Your task to perform on an android device: Go to accessibility settings Image 0: 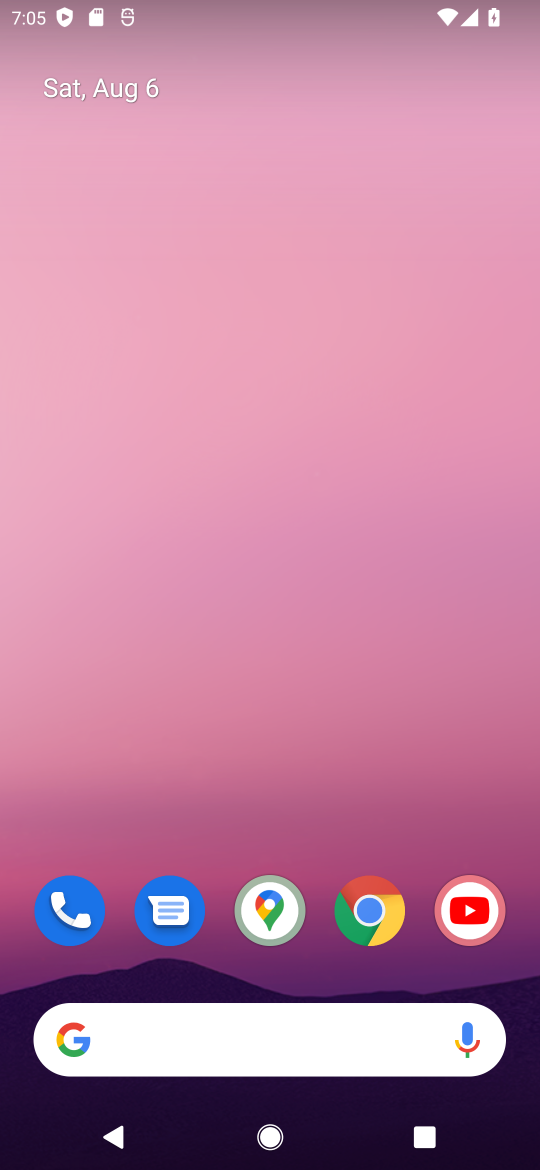
Step 0: drag from (472, 637) to (463, 295)
Your task to perform on an android device: Go to accessibility settings Image 1: 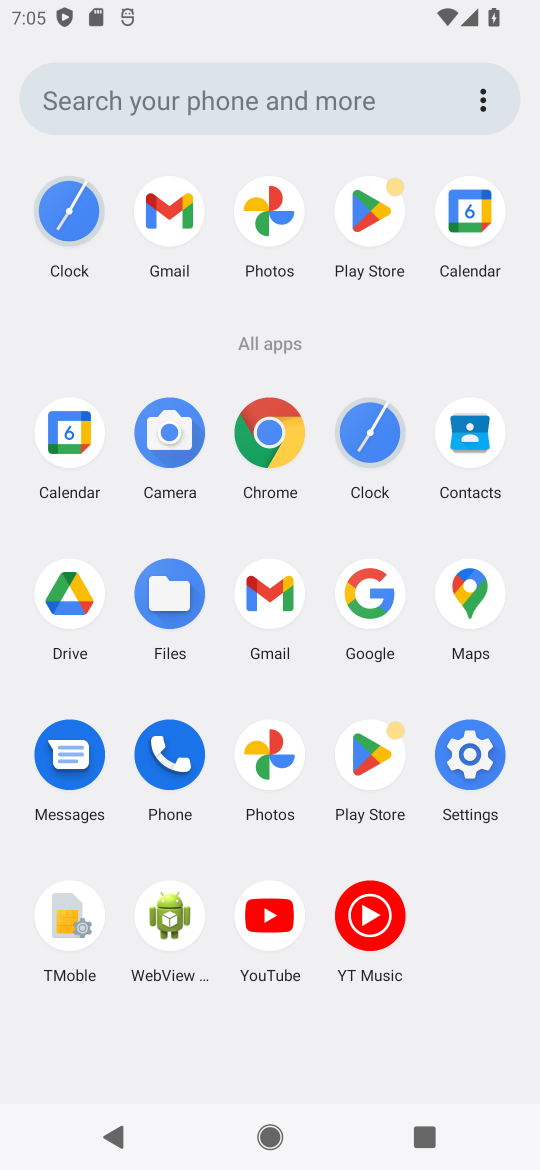
Step 1: click (476, 750)
Your task to perform on an android device: Go to accessibility settings Image 2: 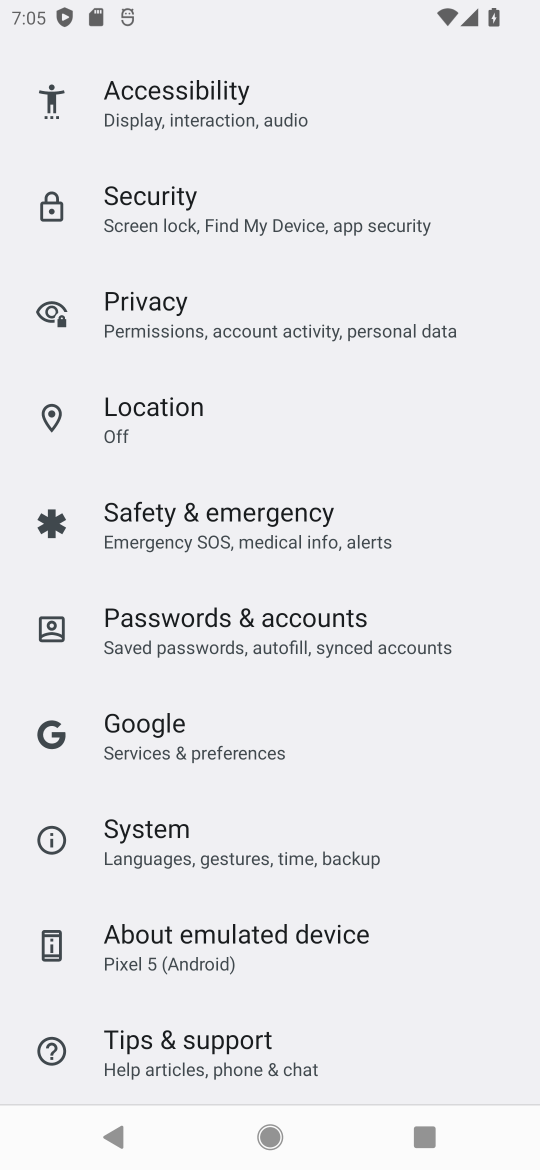
Step 2: click (172, 103)
Your task to perform on an android device: Go to accessibility settings Image 3: 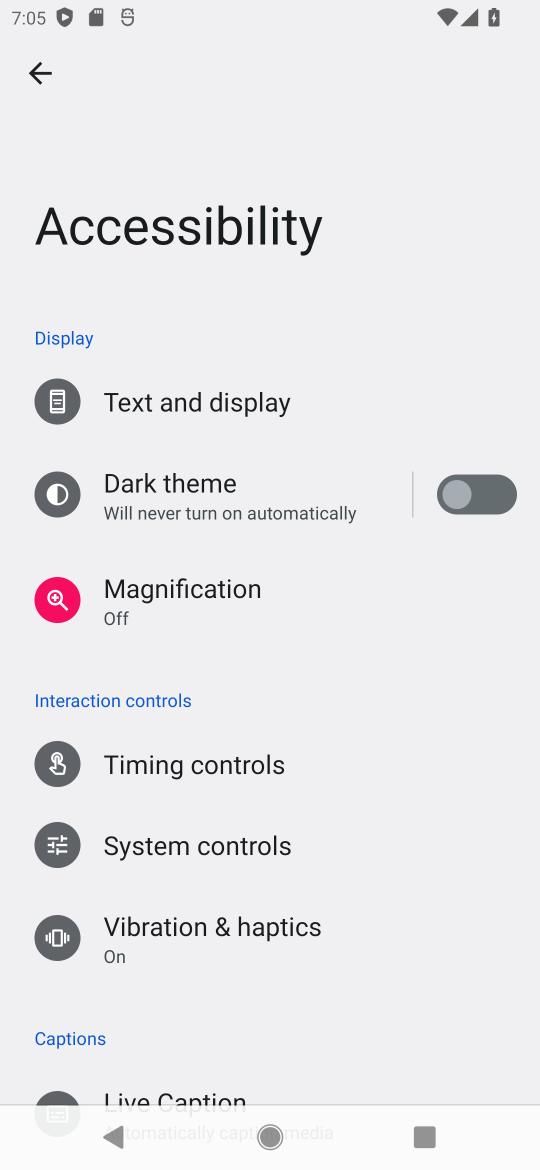
Step 3: task complete